Your task to perform on an android device: Open eBay Image 0: 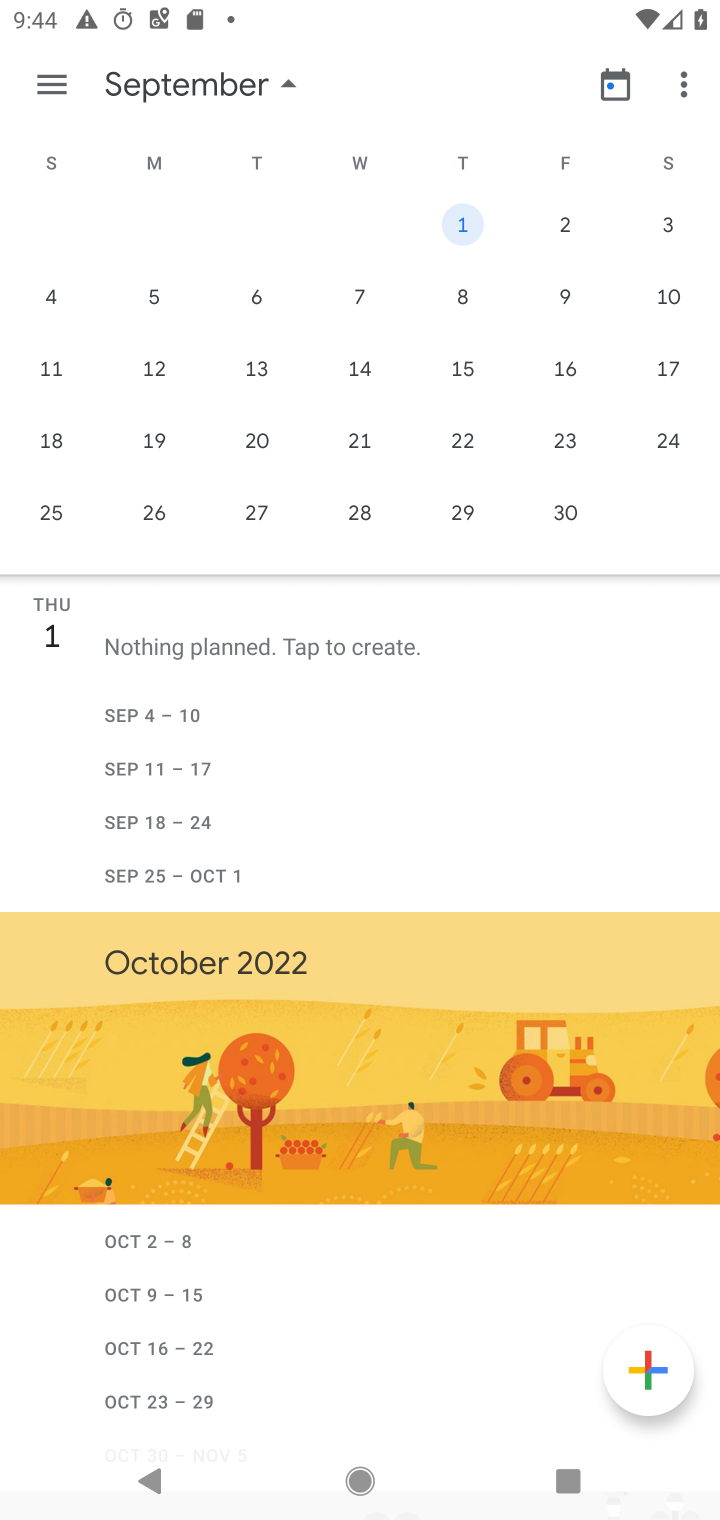
Step 0: press home button
Your task to perform on an android device: Open eBay Image 1: 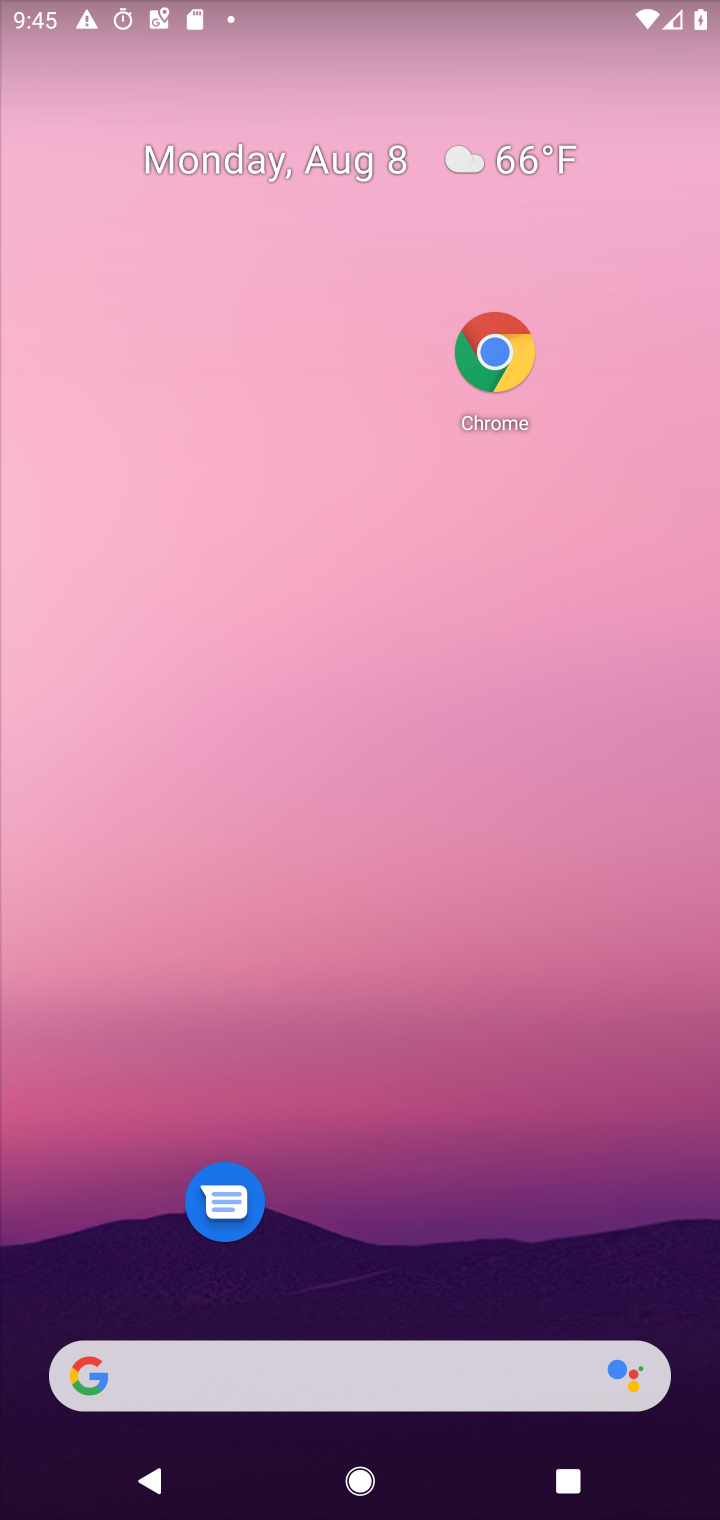
Step 1: click (509, 369)
Your task to perform on an android device: Open eBay Image 2: 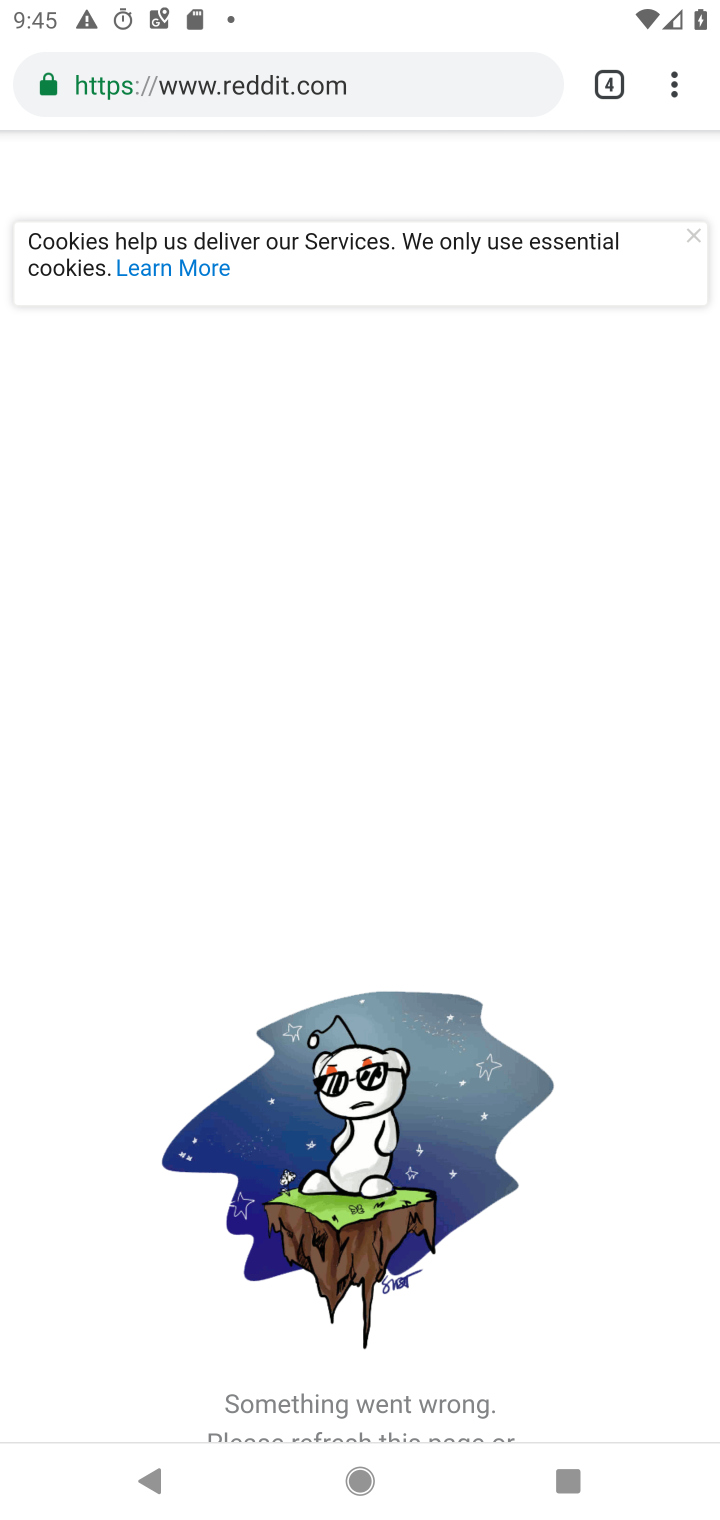
Step 2: click (671, 89)
Your task to perform on an android device: Open eBay Image 3: 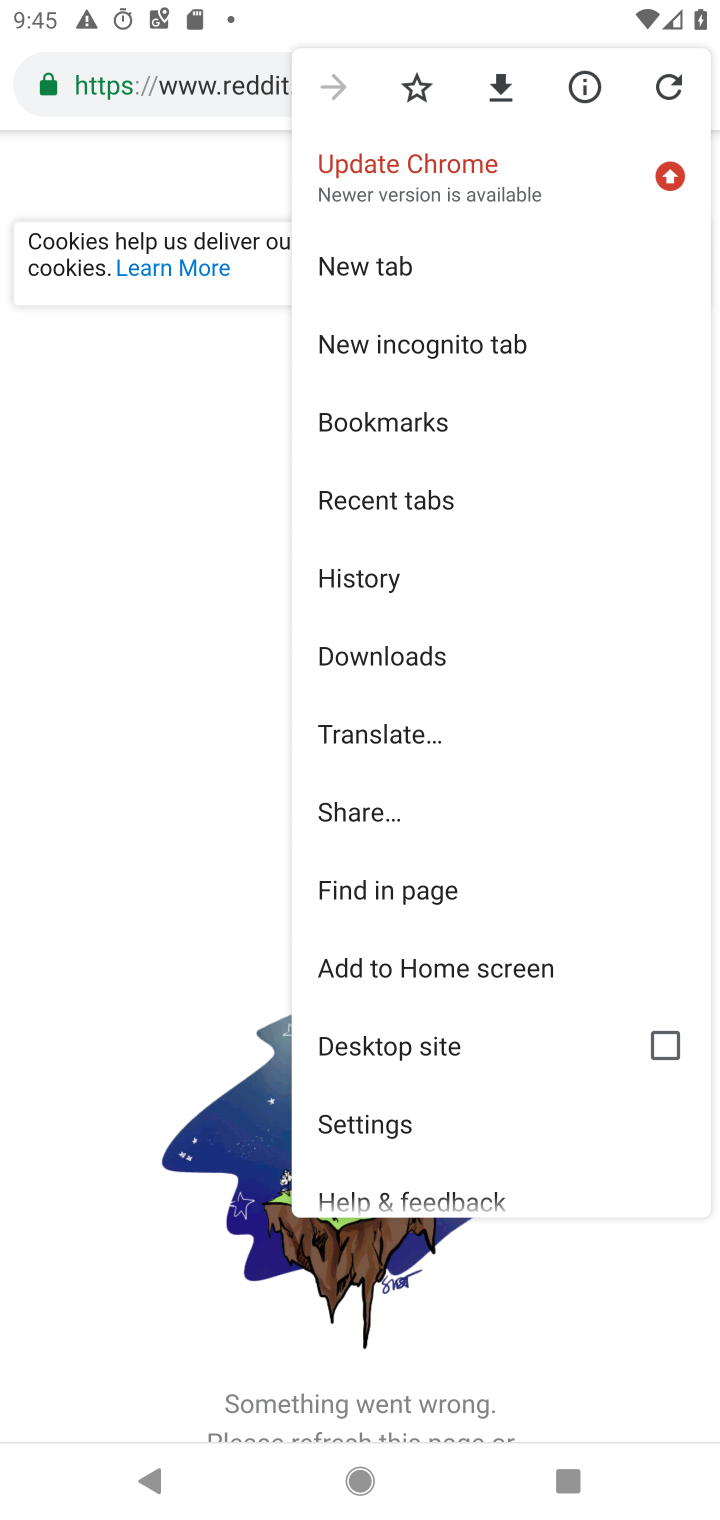
Step 3: click (141, 377)
Your task to perform on an android device: Open eBay Image 4: 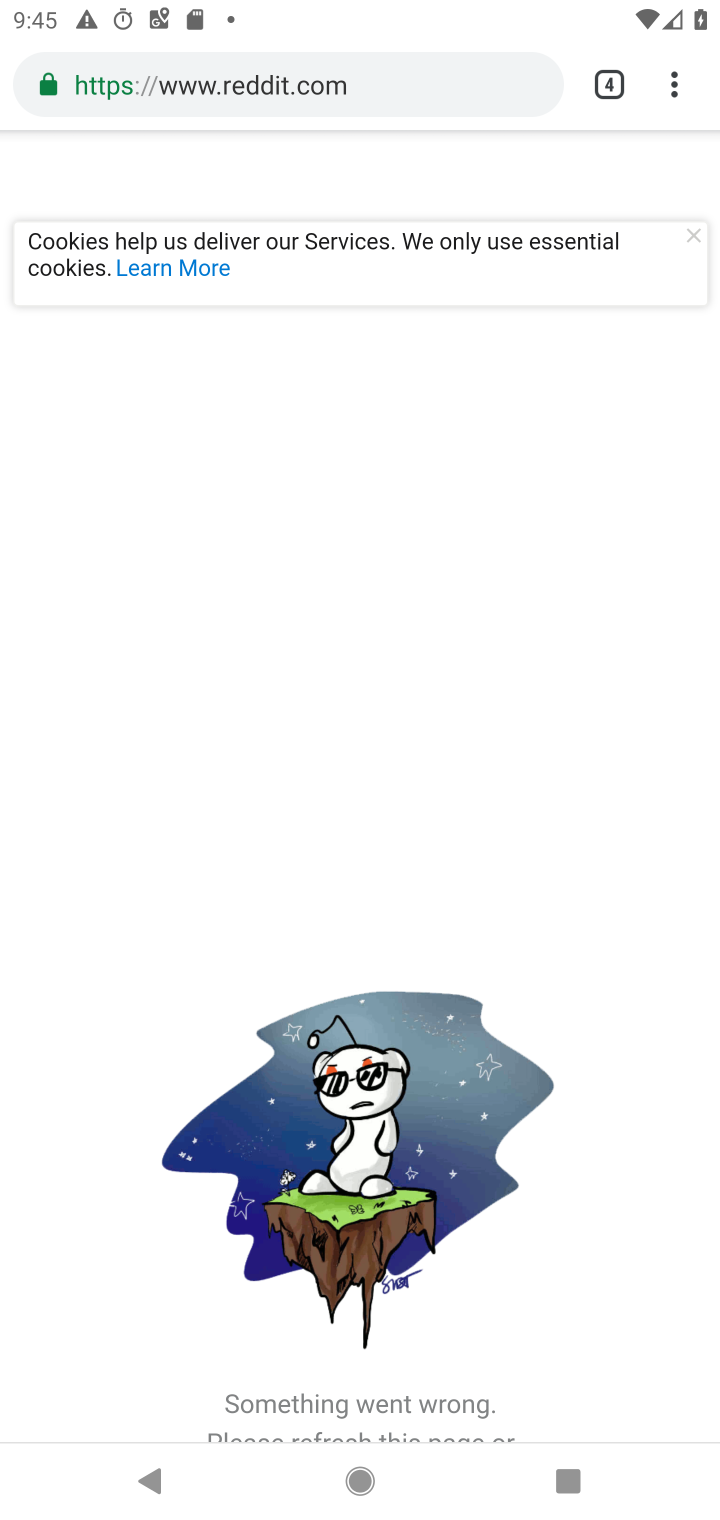
Step 4: click (280, 91)
Your task to perform on an android device: Open eBay Image 5: 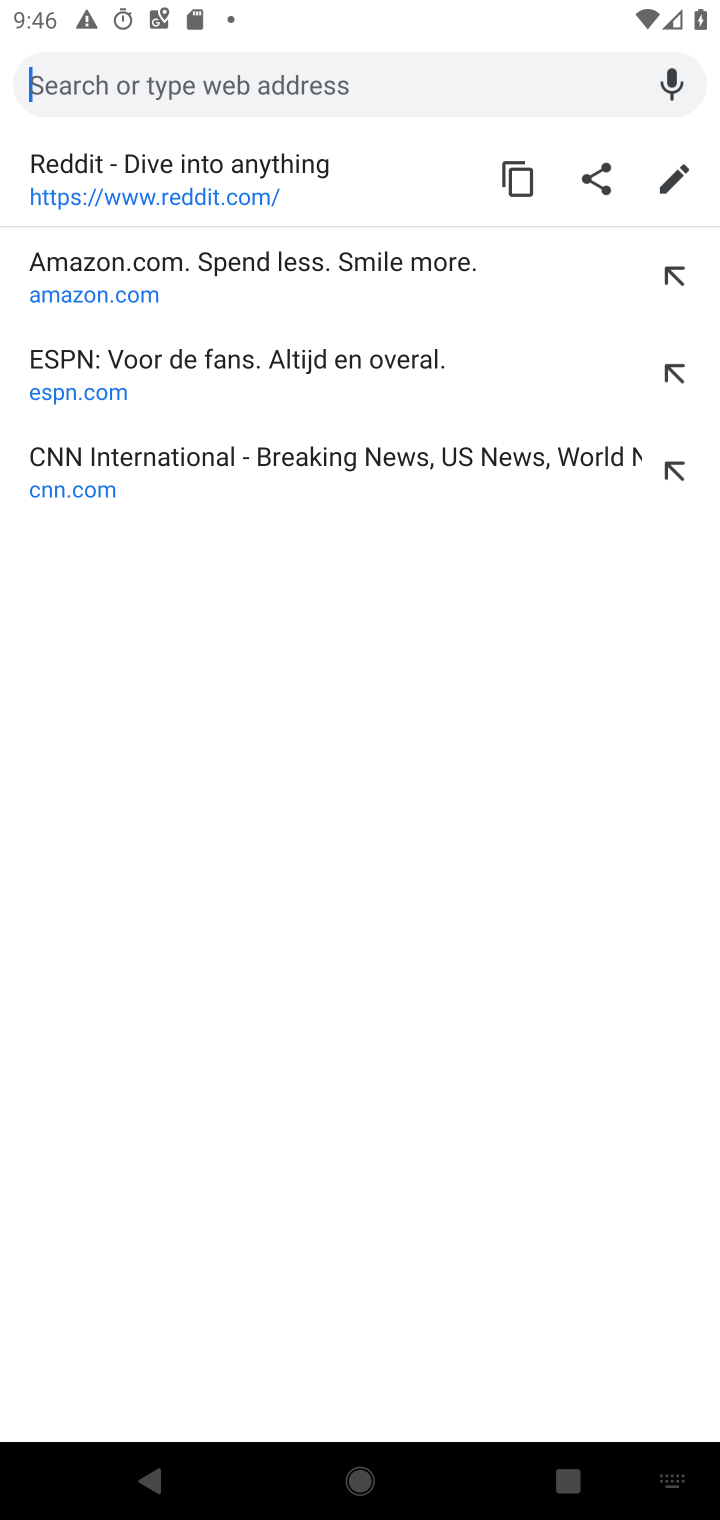
Step 5: type "ebay"
Your task to perform on an android device: Open eBay Image 6: 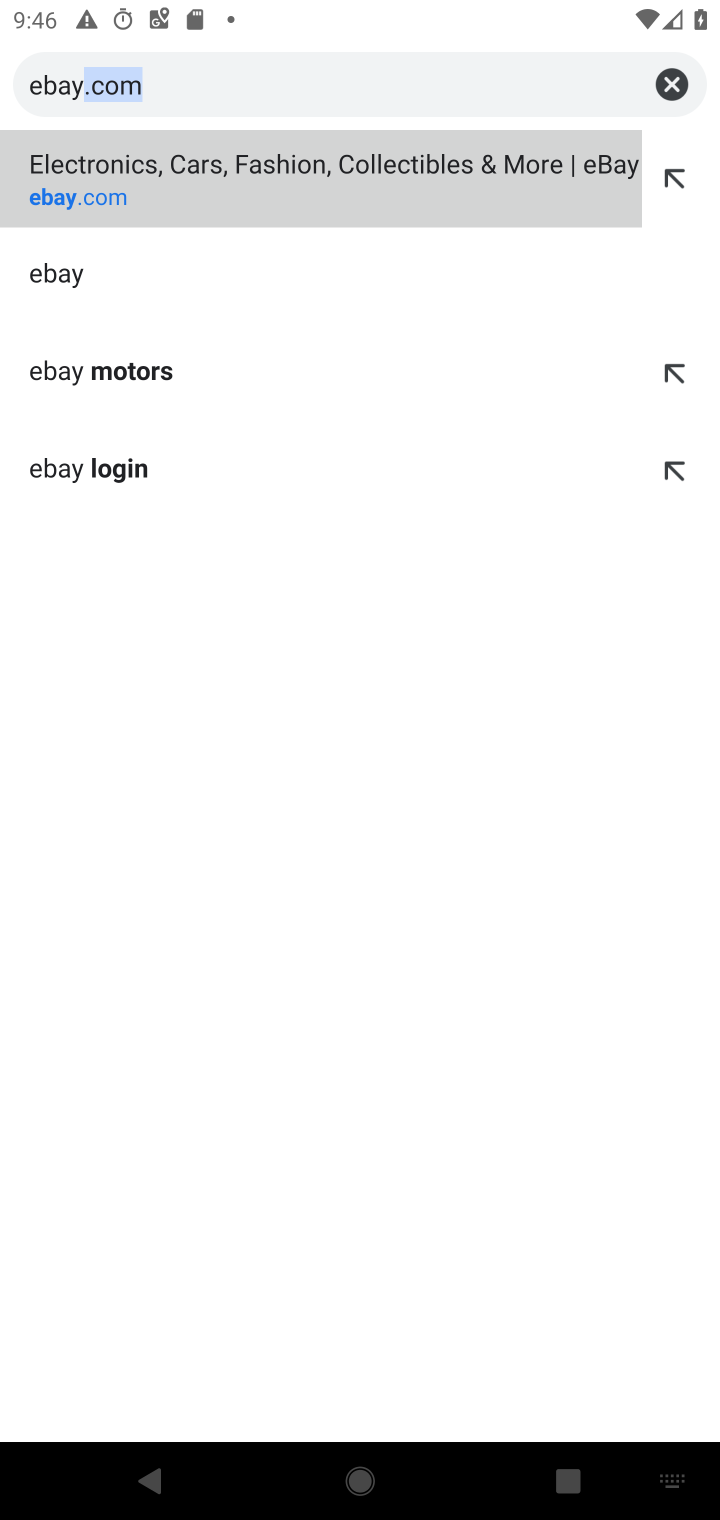
Step 6: click (347, 189)
Your task to perform on an android device: Open eBay Image 7: 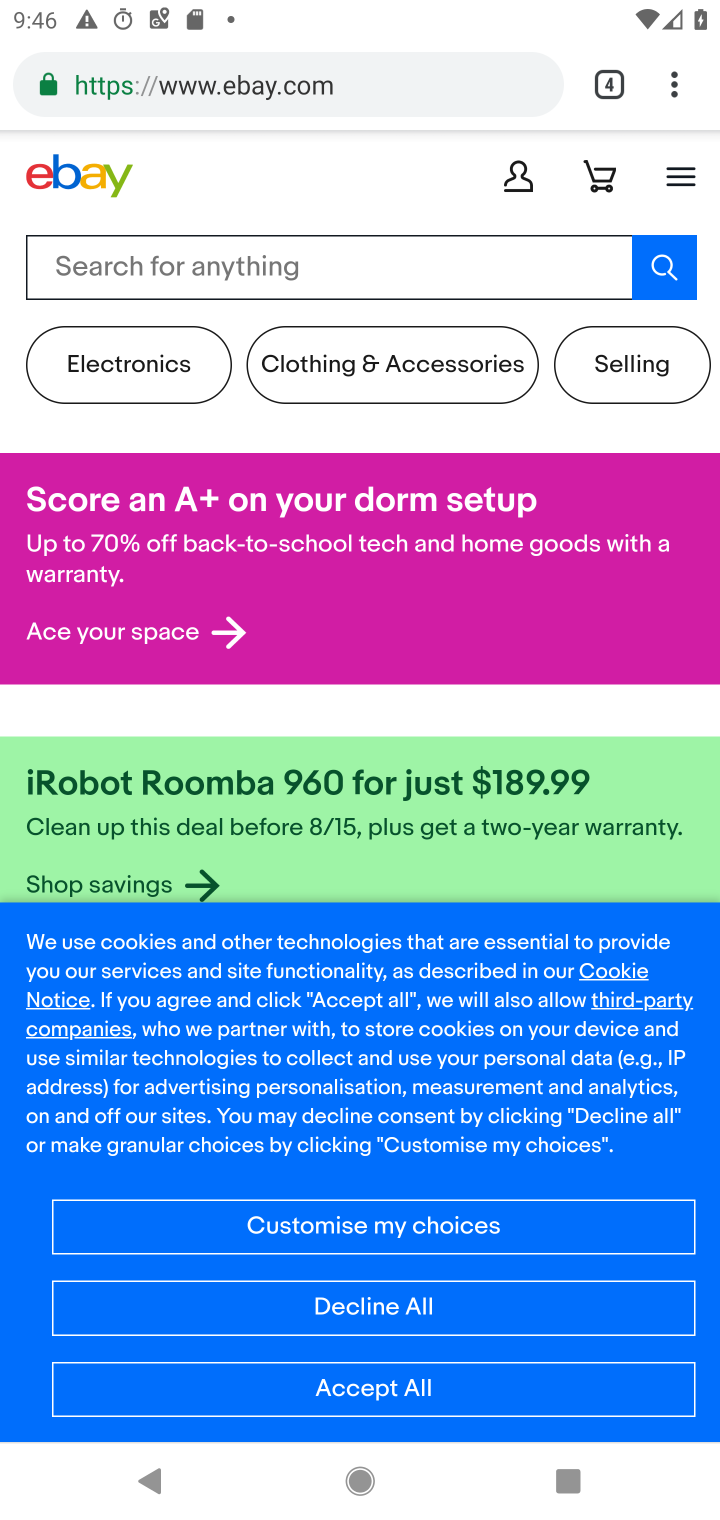
Step 7: task complete